Your task to perform on an android device: How much does a 3 bedroom apartment rent for in Seattle? Image 0: 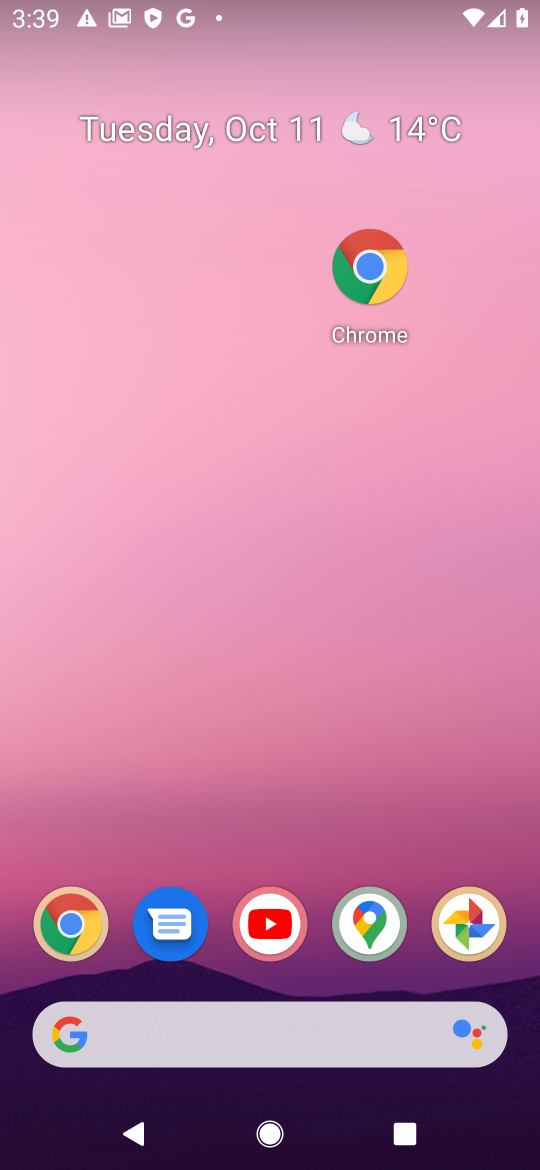
Step 0: drag from (436, 923) to (403, 773)
Your task to perform on an android device: How much does a 3 bedroom apartment rent for in Seattle? Image 1: 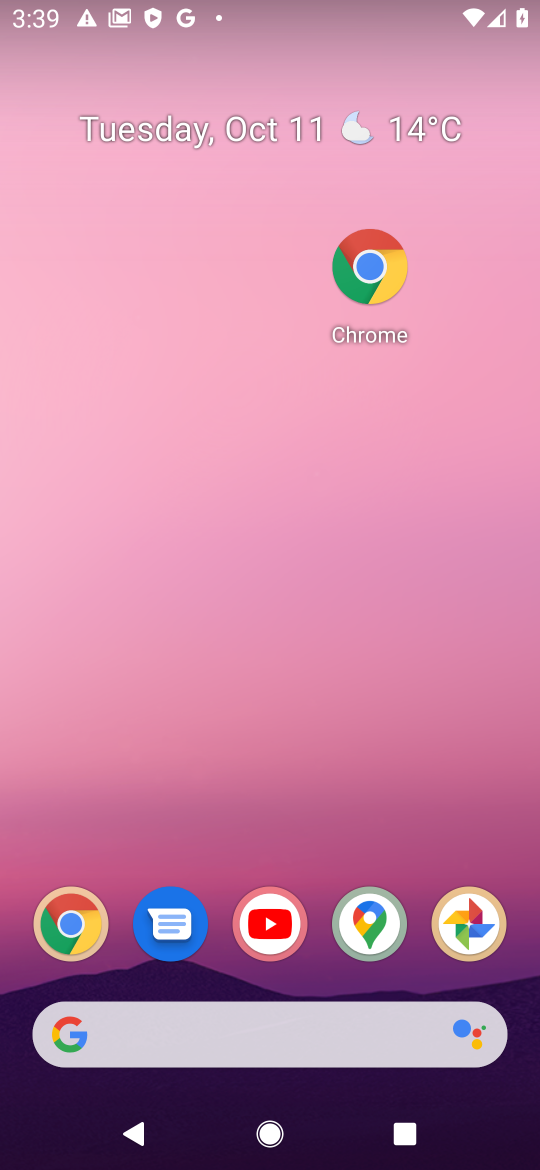
Step 1: click (81, 913)
Your task to perform on an android device: How much does a 3 bedroom apartment rent for in Seattle? Image 2: 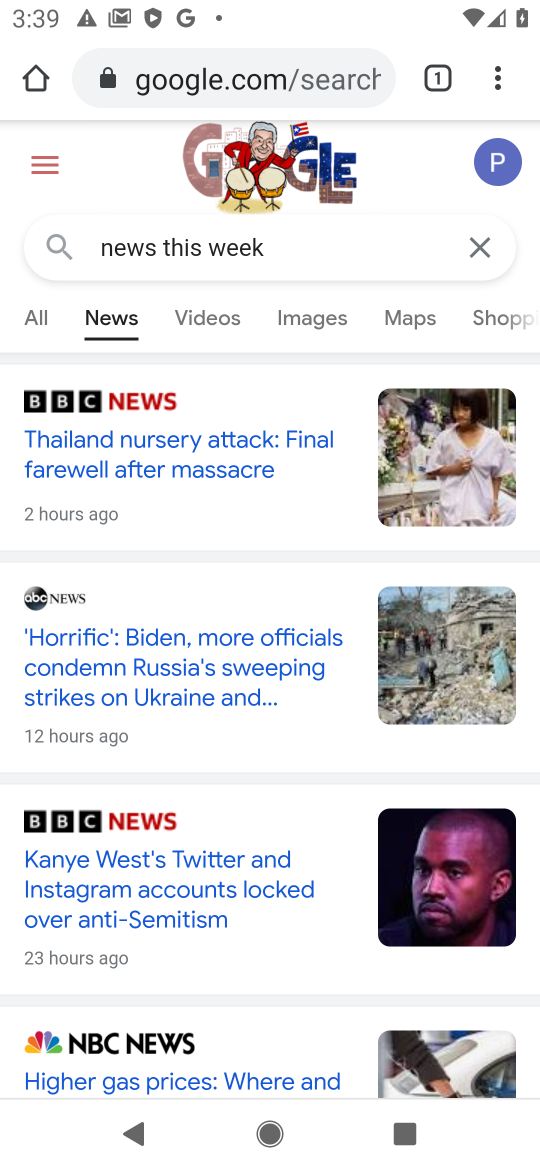
Step 2: press home button
Your task to perform on an android device: How much does a 3 bedroom apartment rent for in Seattle? Image 3: 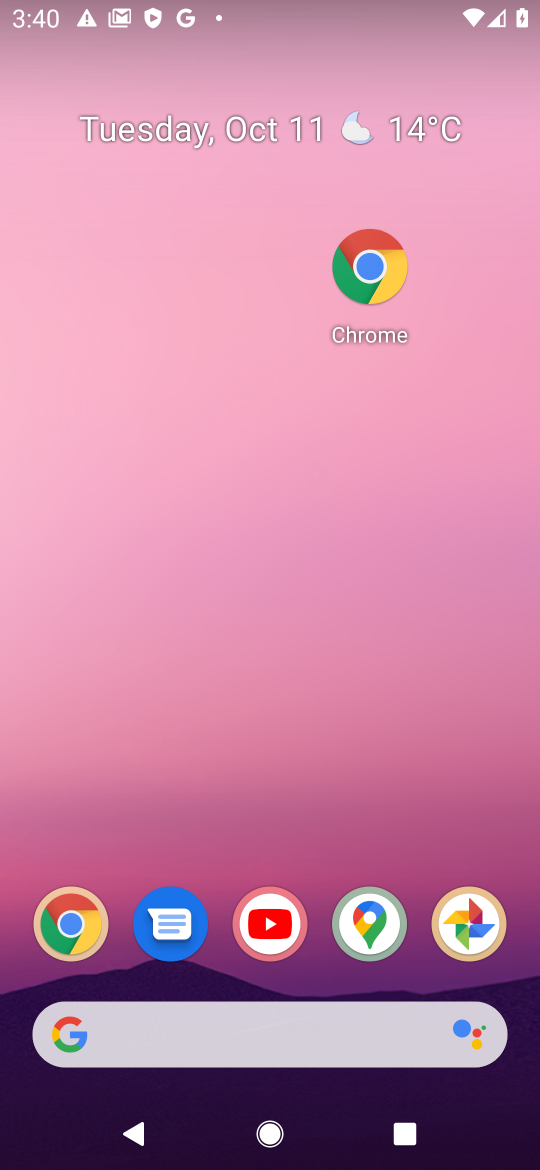
Step 3: click (81, 901)
Your task to perform on an android device: How much does a 3 bedroom apartment rent for in Seattle? Image 4: 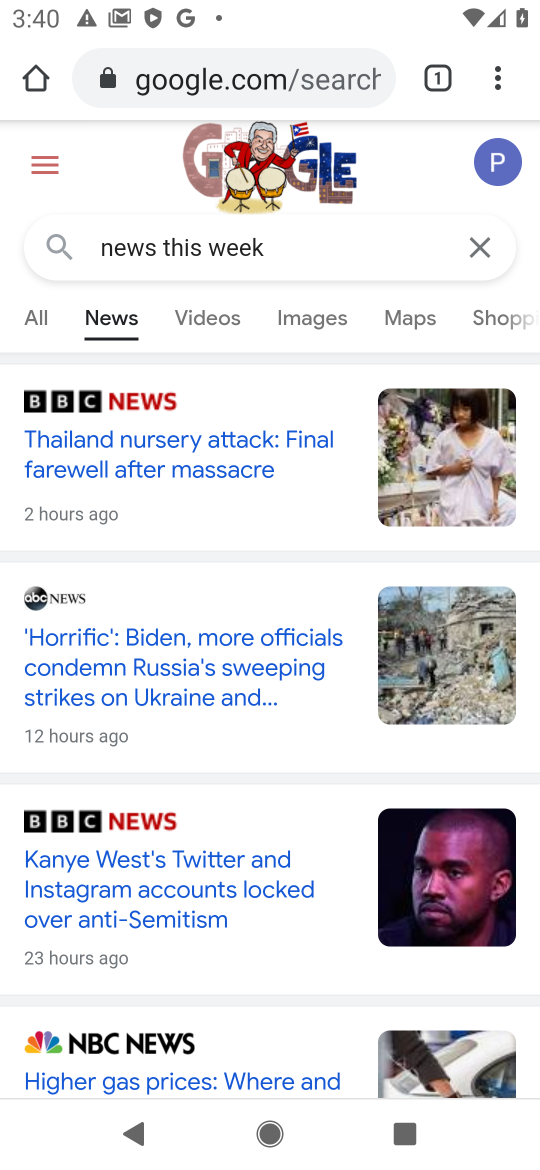
Step 4: click (228, 86)
Your task to perform on an android device: How much does a 3 bedroom apartment rent for in Seattle? Image 5: 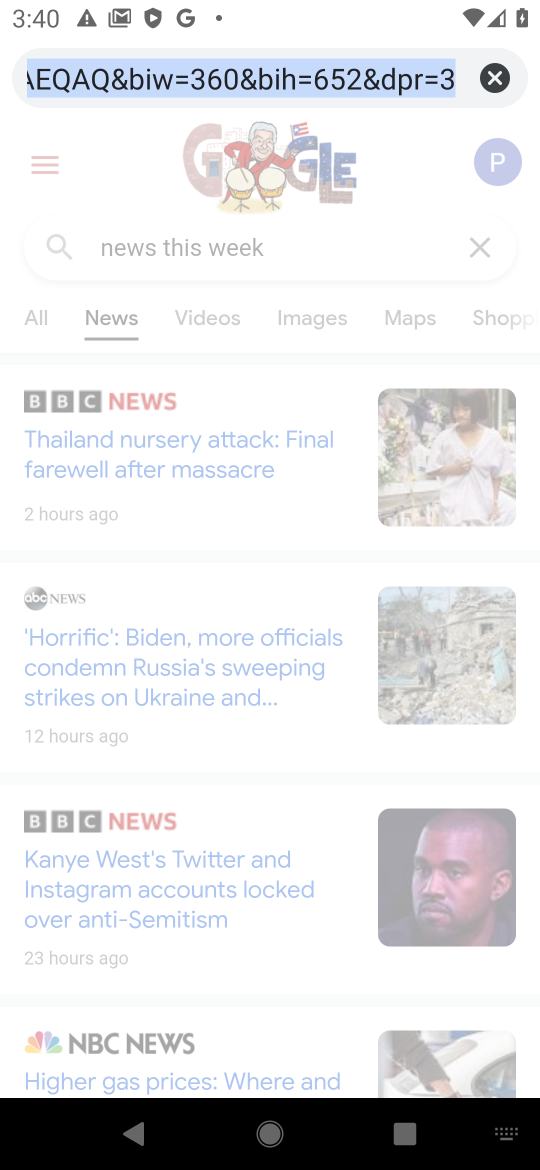
Step 5: type "3 bedroom apartment rent for in Seattle"
Your task to perform on an android device: How much does a 3 bedroom apartment rent for in Seattle? Image 6: 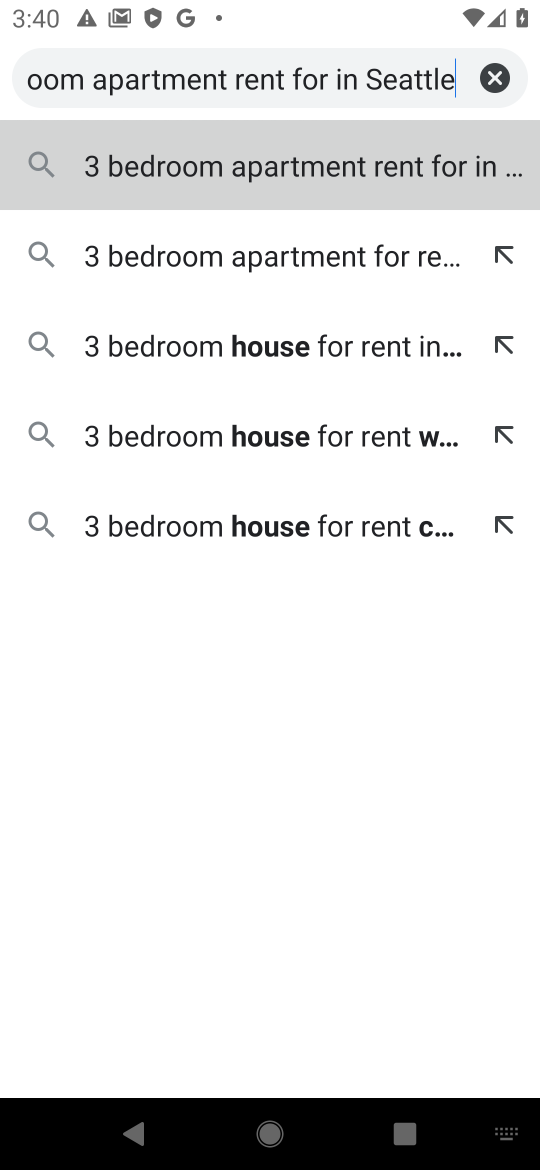
Step 6: click (396, 154)
Your task to perform on an android device: How much does a 3 bedroom apartment rent for in Seattle? Image 7: 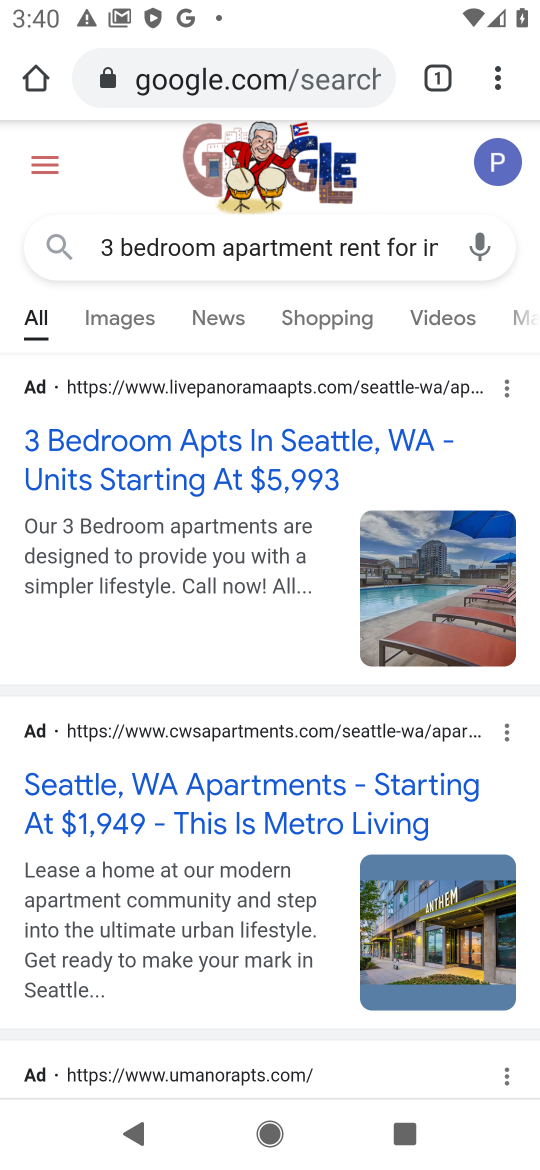
Step 7: drag from (458, 693) to (301, 197)
Your task to perform on an android device: How much does a 3 bedroom apartment rent for in Seattle? Image 8: 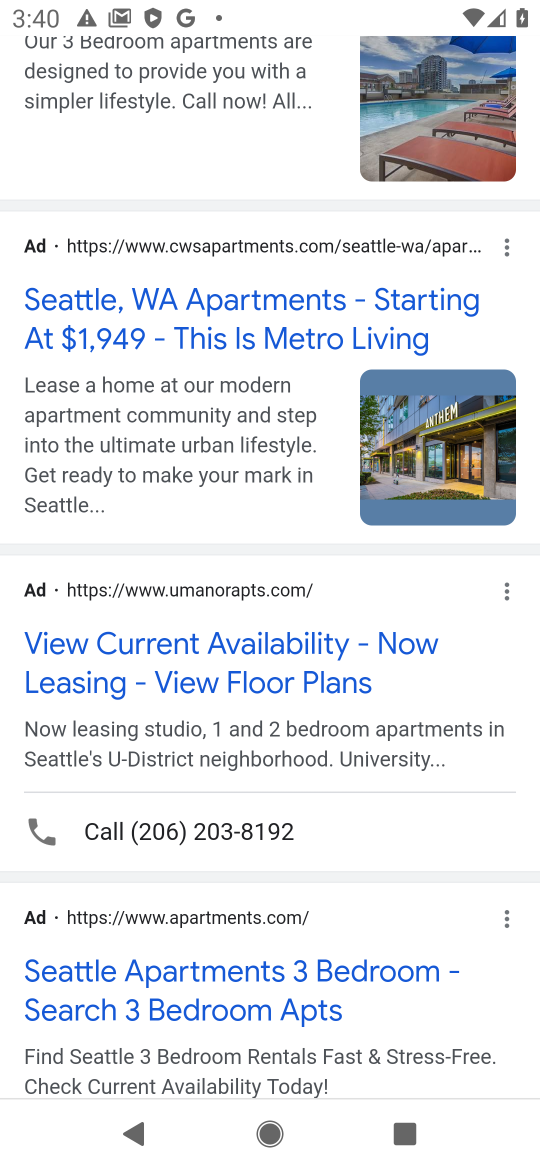
Step 8: drag from (383, 881) to (291, 148)
Your task to perform on an android device: How much does a 3 bedroom apartment rent for in Seattle? Image 9: 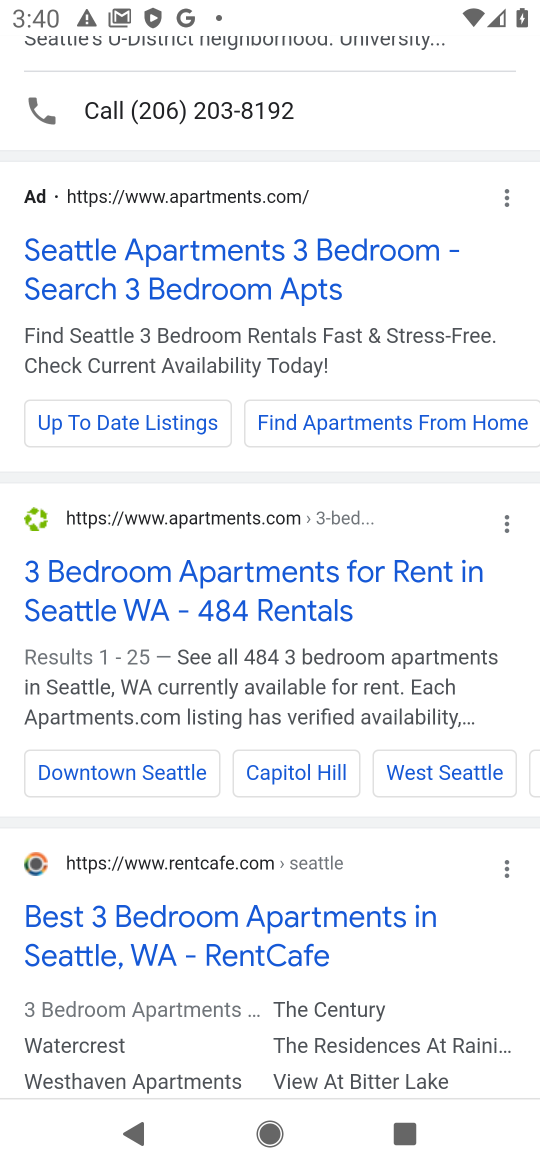
Step 9: drag from (411, 826) to (216, 315)
Your task to perform on an android device: How much does a 3 bedroom apartment rent for in Seattle? Image 10: 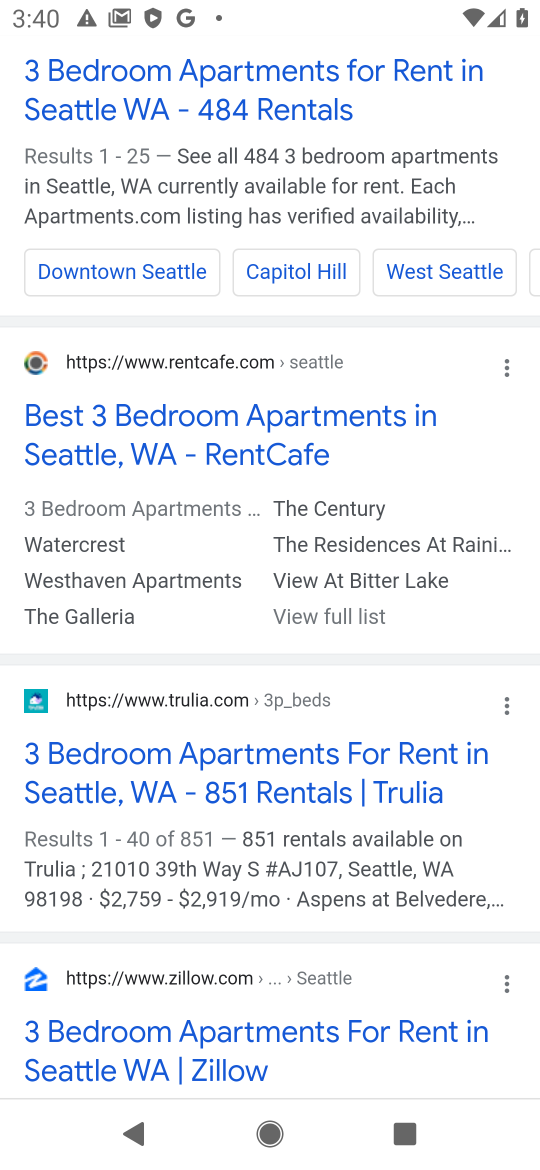
Step 10: click (243, 426)
Your task to perform on an android device: How much does a 3 bedroom apartment rent for in Seattle? Image 11: 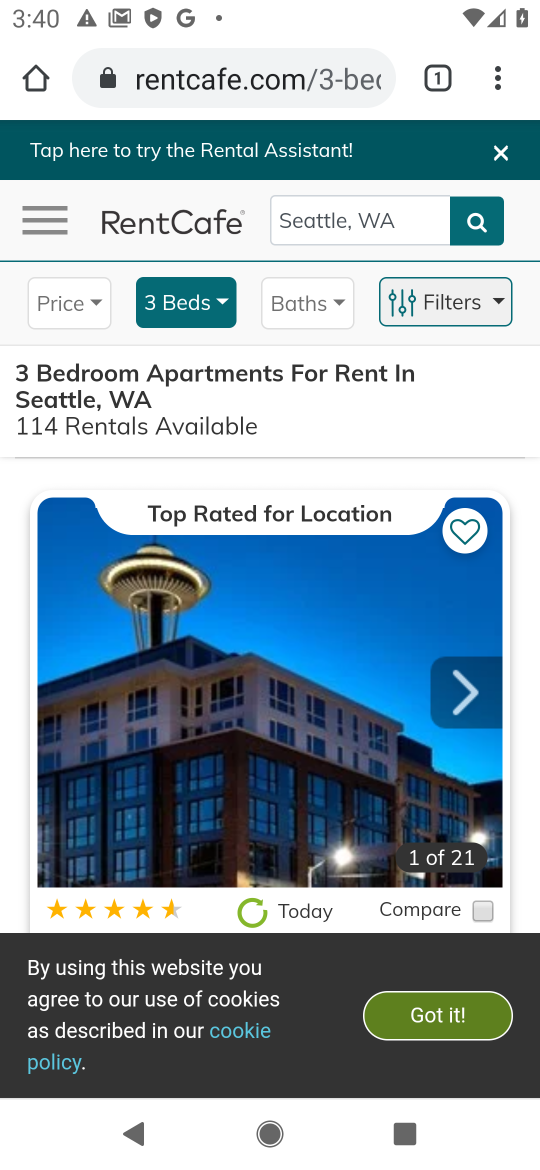
Step 11: task complete